Your task to perform on an android device: allow cookies in the chrome app Image 0: 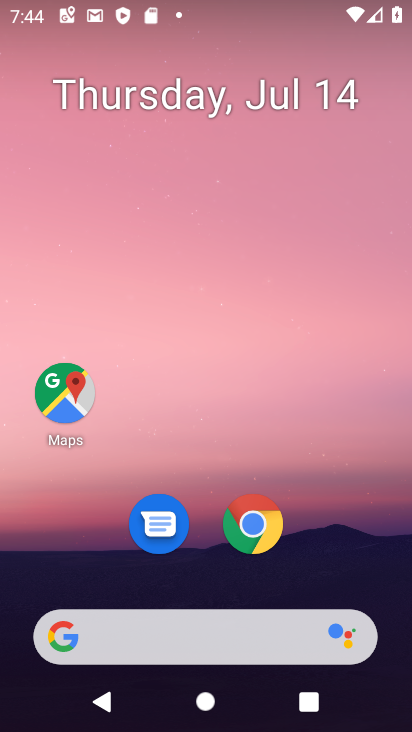
Step 0: drag from (324, 562) to (269, 6)
Your task to perform on an android device: allow cookies in the chrome app Image 1: 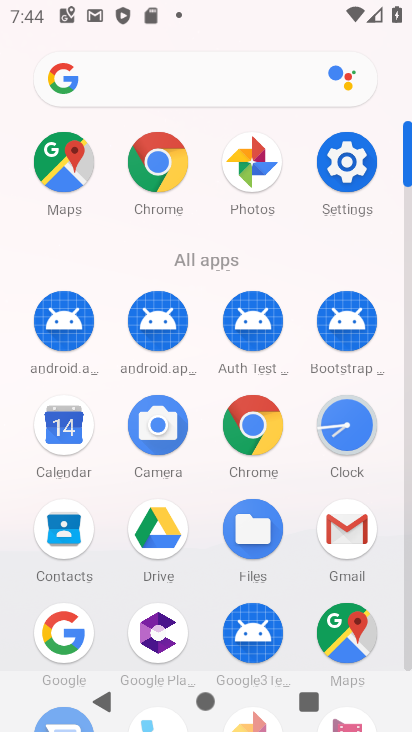
Step 1: click (164, 164)
Your task to perform on an android device: allow cookies in the chrome app Image 2: 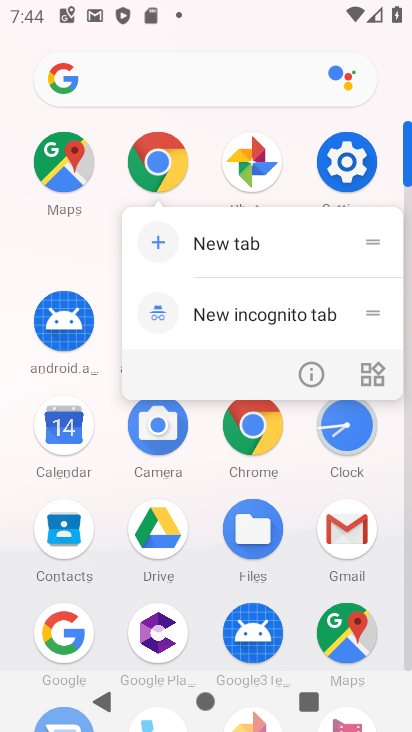
Step 2: click (164, 164)
Your task to perform on an android device: allow cookies in the chrome app Image 3: 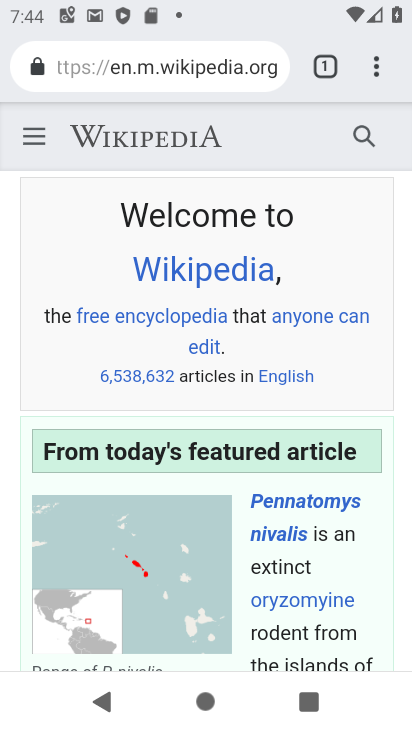
Step 3: click (376, 68)
Your task to perform on an android device: allow cookies in the chrome app Image 4: 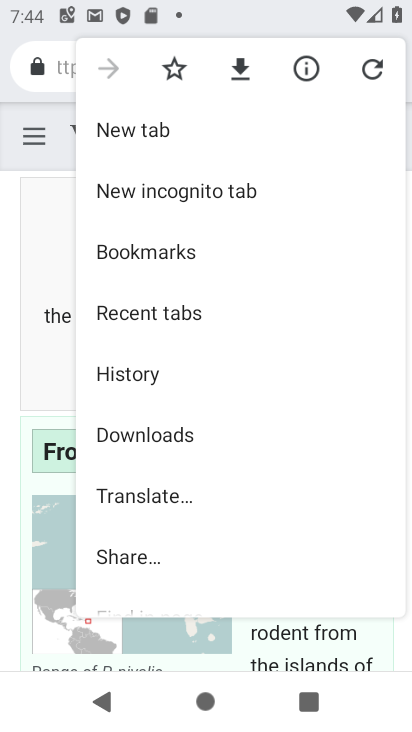
Step 4: drag from (265, 444) to (256, 110)
Your task to perform on an android device: allow cookies in the chrome app Image 5: 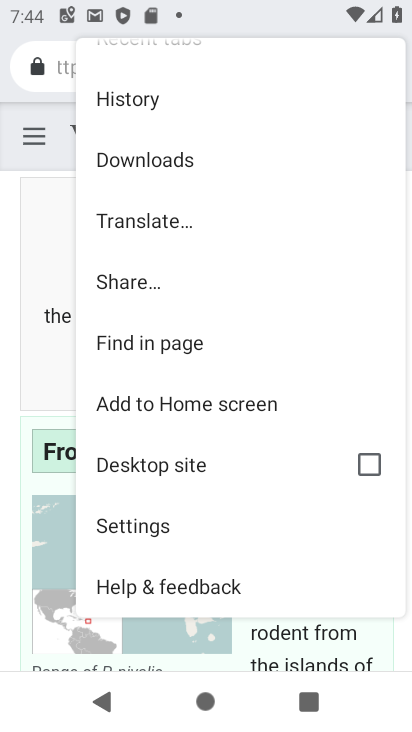
Step 5: click (145, 523)
Your task to perform on an android device: allow cookies in the chrome app Image 6: 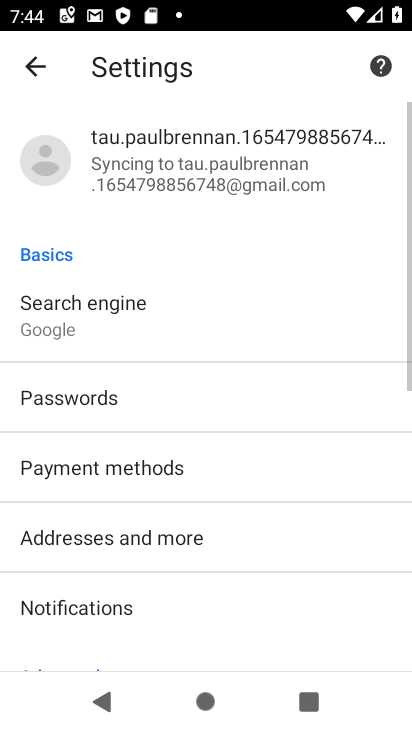
Step 6: drag from (264, 505) to (269, 213)
Your task to perform on an android device: allow cookies in the chrome app Image 7: 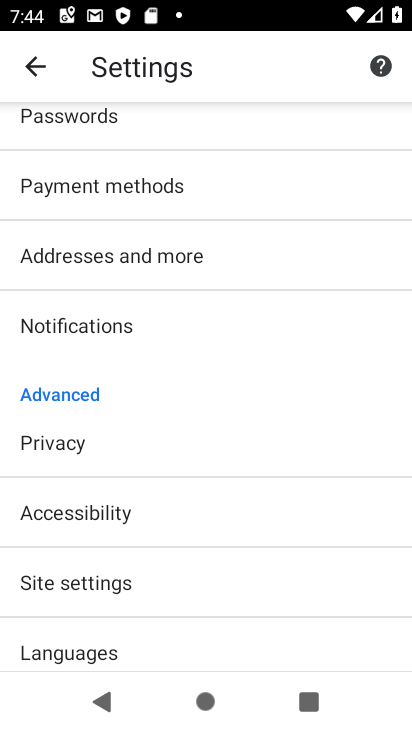
Step 7: click (105, 582)
Your task to perform on an android device: allow cookies in the chrome app Image 8: 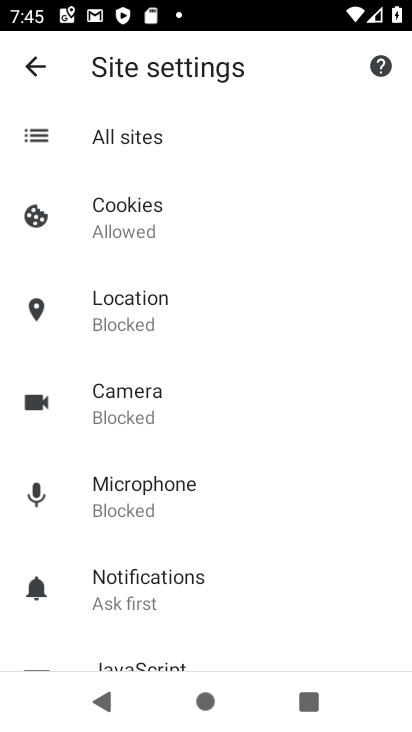
Step 8: task complete